Your task to perform on an android device: Go to sound settings Image 0: 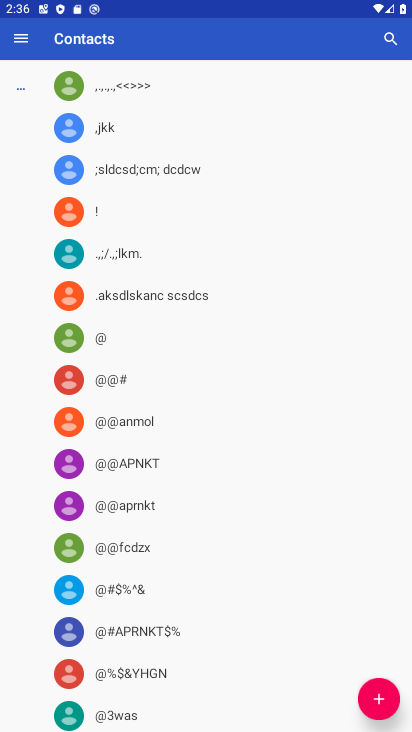
Step 0: press home button
Your task to perform on an android device: Go to sound settings Image 1: 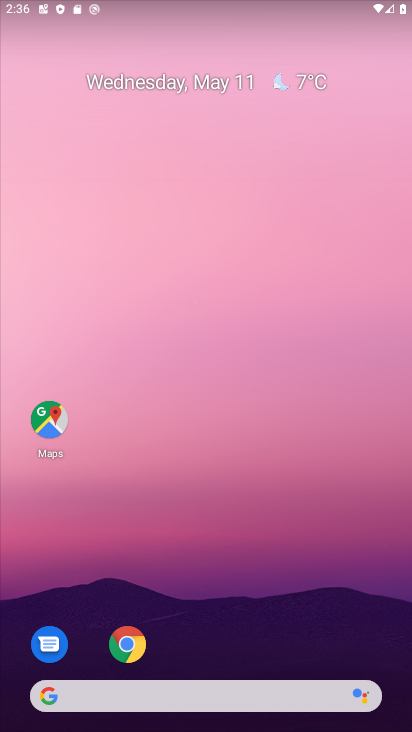
Step 1: drag from (179, 657) to (247, 63)
Your task to perform on an android device: Go to sound settings Image 2: 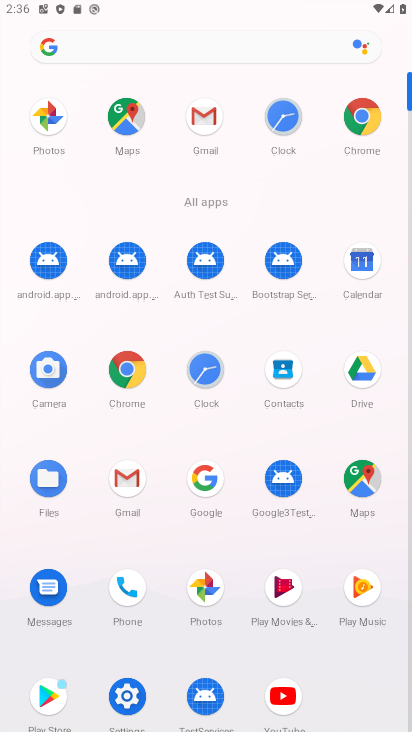
Step 2: click (130, 687)
Your task to perform on an android device: Go to sound settings Image 3: 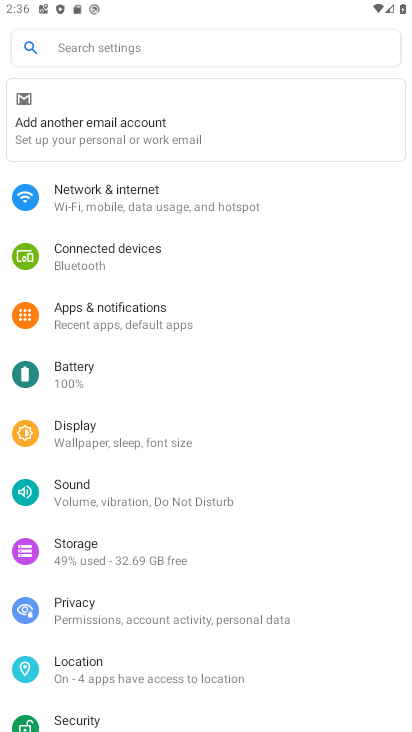
Step 3: click (147, 507)
Your task to perform on an android device: Go to sound settings Image 4: 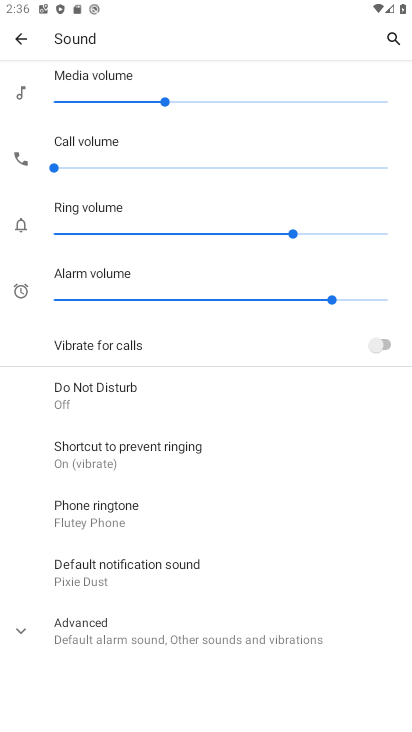
Step 4: task complete